Your task to perform on an android device: check battery use Image 0: 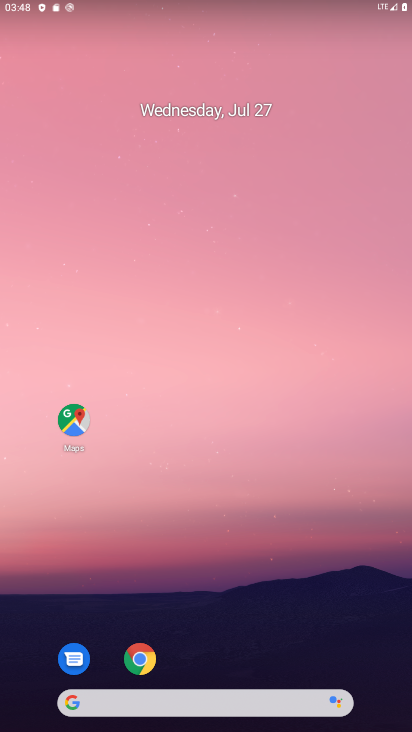
Step 0: drag from (256, 655) to (287, 58)
Your task to perform on an android device: check battery use Image 1: 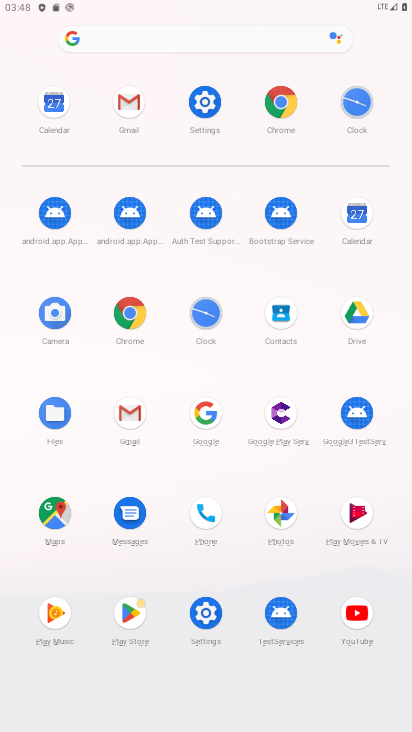
Step 1: click (207, 108)
Your task to perform on an android device: check battery use Image 2: 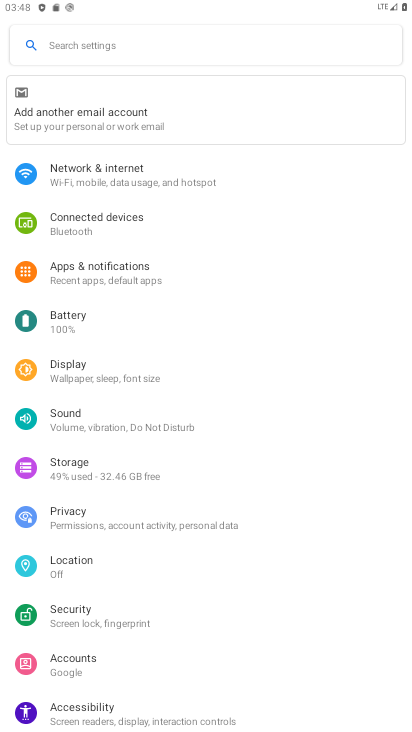
Step 2: click (66, 327)
Your task to perform on an android device: check battery use Image 3: 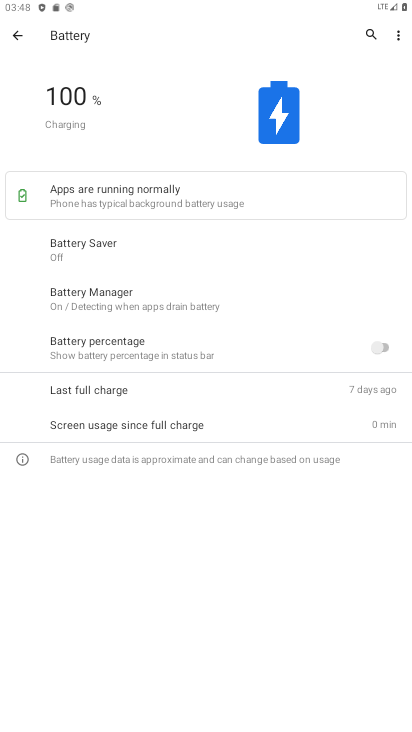
Step 3: click (402, 33)
Your task to perform on an android device: check battery use Image 4: 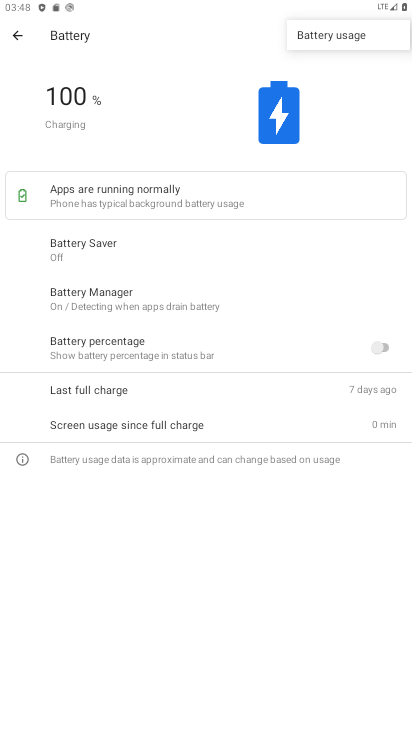
Step 4: click (342, 31)
Your task to perform on an android device: check battery use Image 5: 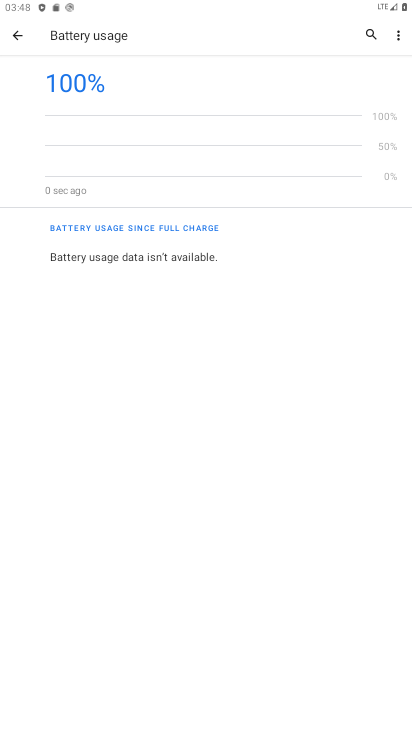
Step 5: task complete